Your task to perform on an android device: Open Youtube and go to "Your channel" Image 0: 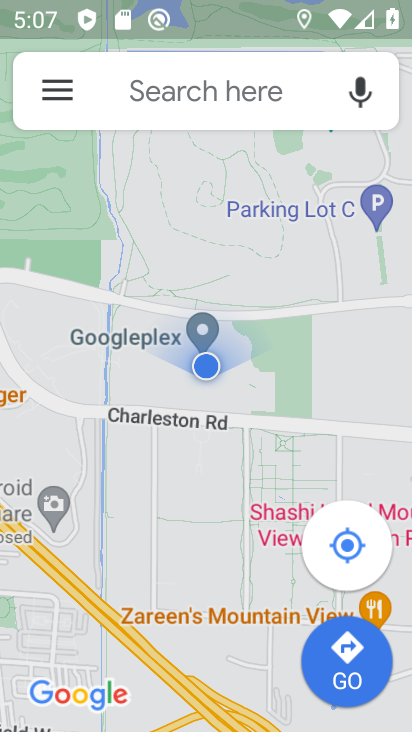
Step 0: press home button
Your task to perform on an android device: Open Youtube and go to "Your channel" Image 1: 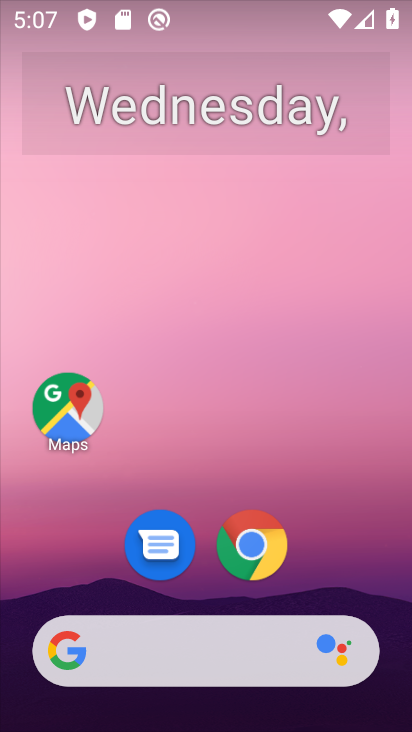
Step 1: drag from (228, 549) to (335, 47)
Your task to perform on an android device: Open Youtube and go to "Your channel" Image 2: 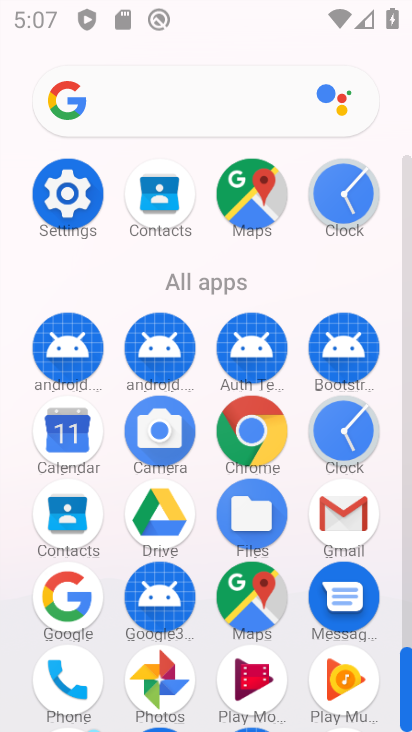
Step 2: drag from (171, 592) to (315, 12)
Your task to perform on an android device: Open Youtube and go to "Your channel" Image 3: 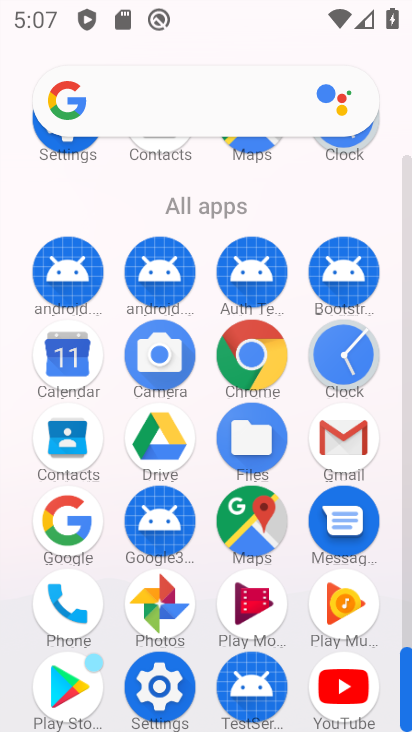
Step 3: click (341, 675)
Your task to perform on an android device: Open Youtube and go to "Your channel" Image 4: 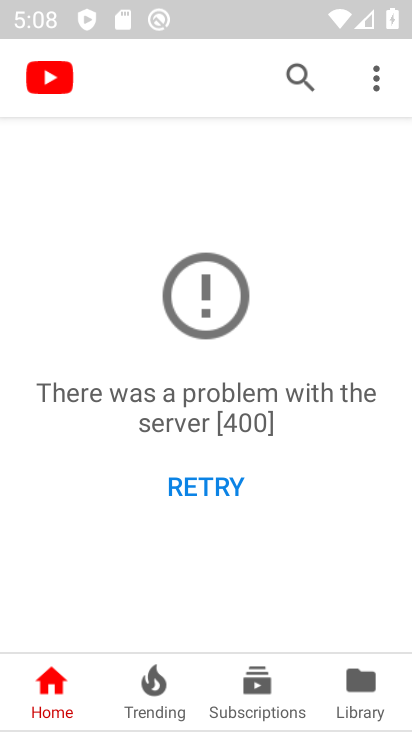
Step 4: task complete